Your task to perform on an android device: move an email to a new category in the gmail app Image 0: 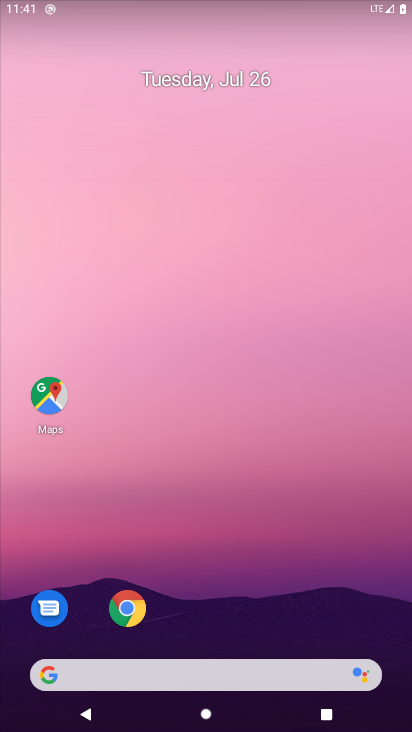
Step 0: press home button
Your task to perform on an android device: move an email to a new category in the gmail app Image 1: 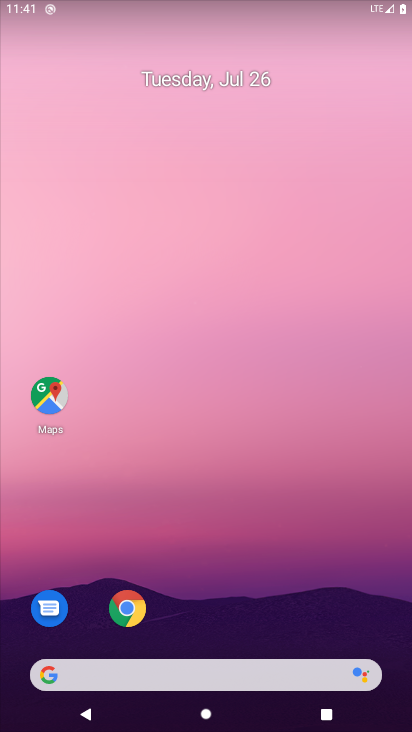
Step 1: drag from (300, 616) to (275, 62)
Your task to perform on an android device: move an email to a new category in the gmail app Image 2: 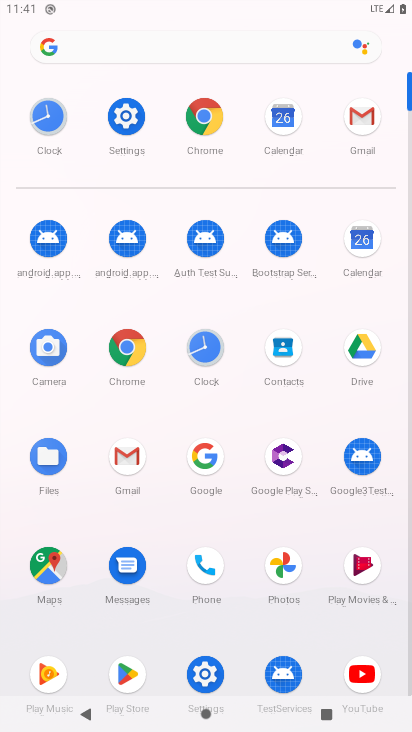
Step 2: click (368, 124)
Your task to perform on an android device: move an email to a new category in the gmail app Image 3: 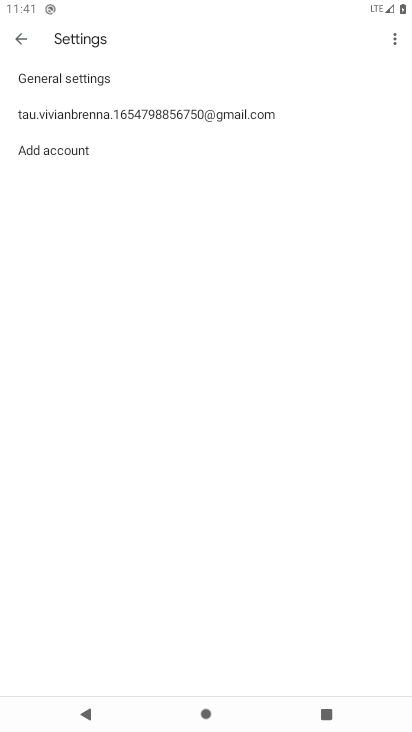
Step 3: click (19, 39)
Your task to perform on an android device: move an email to a new category in the gmail app Image 4: 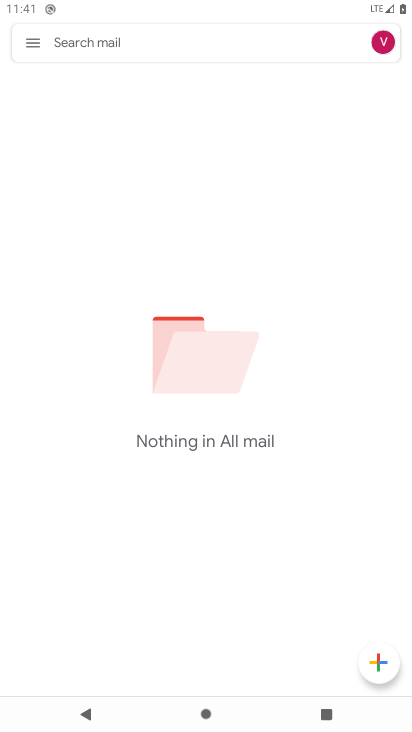
Step 4: click (33, 39)
Your task to perform on an android device: move an email to a new category in the gmail app Image 5: 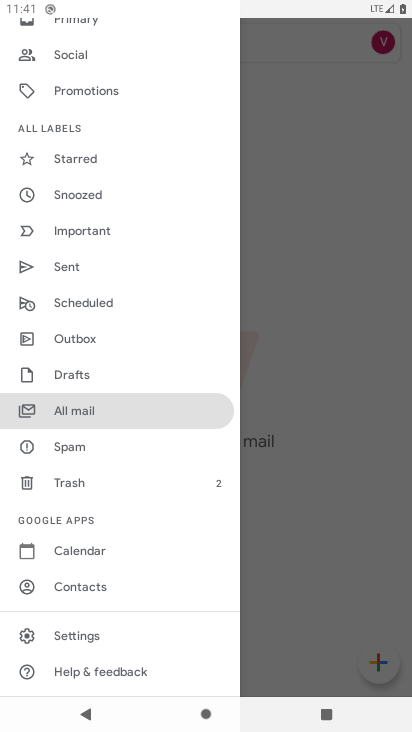
Step 5: click (71, 408)
Your task to perform on an android device: move an email to a new category in the gmail app Image 6: 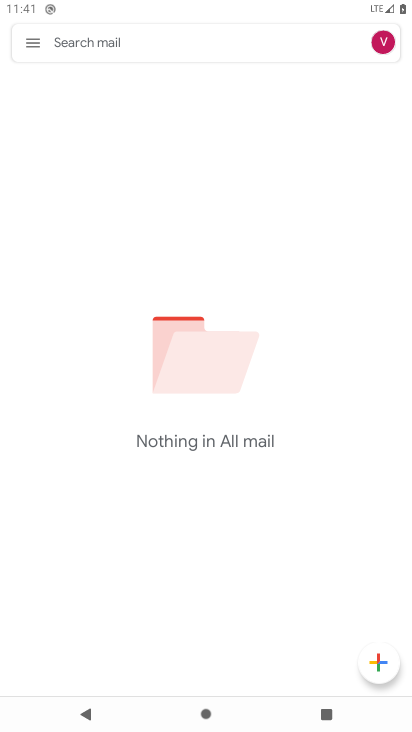
Step 6: task complete